Your task to perform on an android device: What's on my calendar today? Image 0: 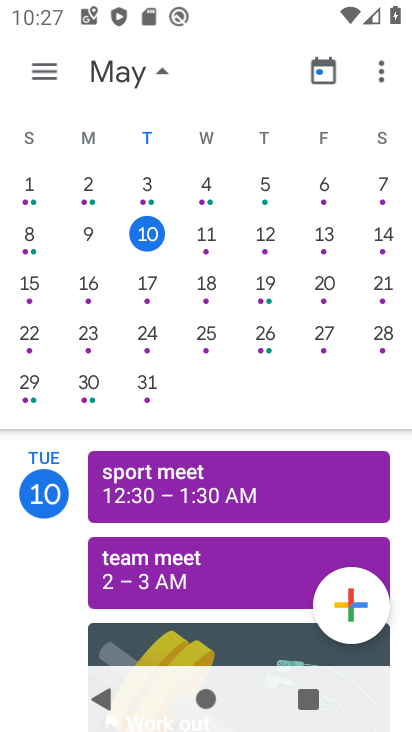
Step 0: press home button
Your task to perform on an android device: What's on my calendar today? Image 1: 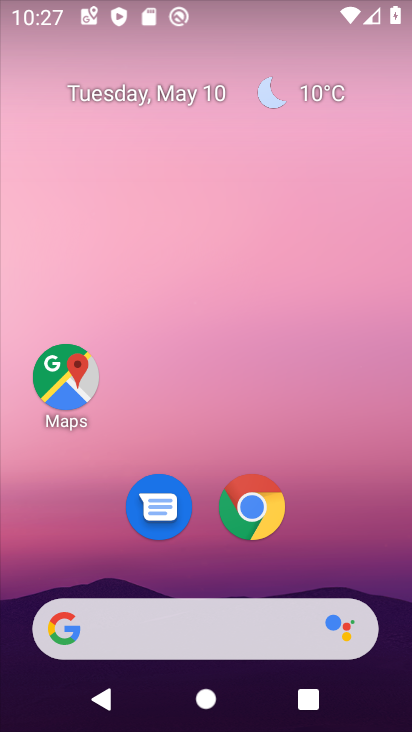
Step 1: drag from (323, 396) to (349, 107)
Your task to perform on an android device: What's on my calendar today? Image 2: 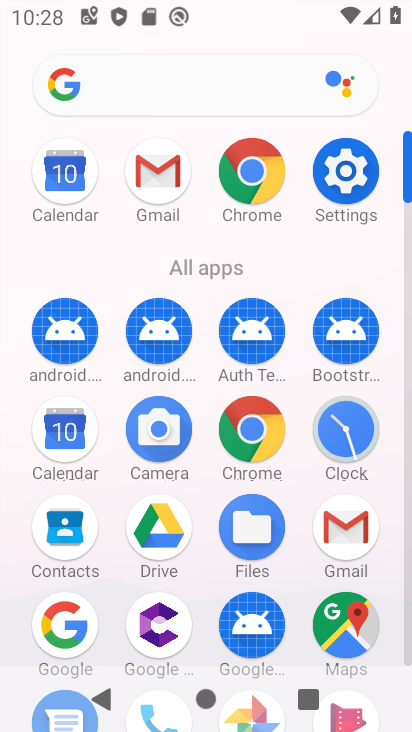
Step 2: click (73, 448)
Your task to perform on an android device: What's on my calendar today? Image 3: 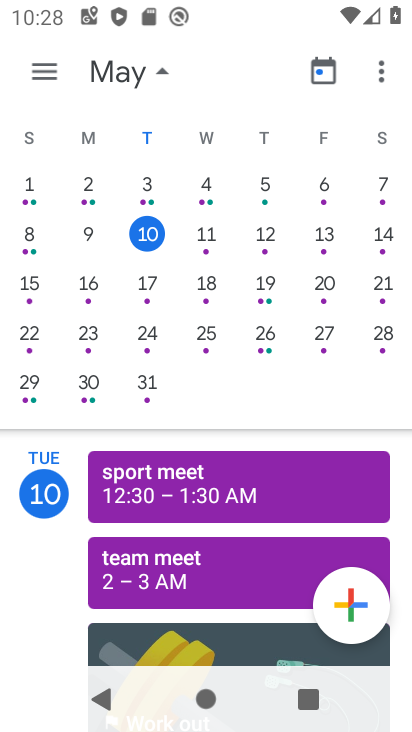
Step 3: click (147, 244)
Your task to perform on an android device: What's on my calendar today? Image 4: 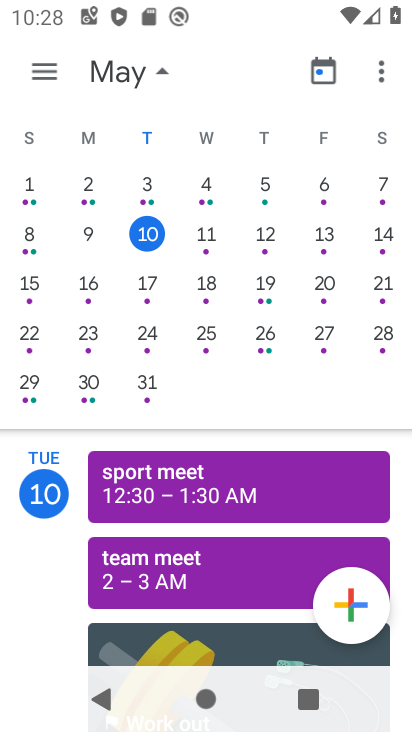
Step 4: task complete